Your task to perform on an android device: Do I have any events tomorrow? Image 0: 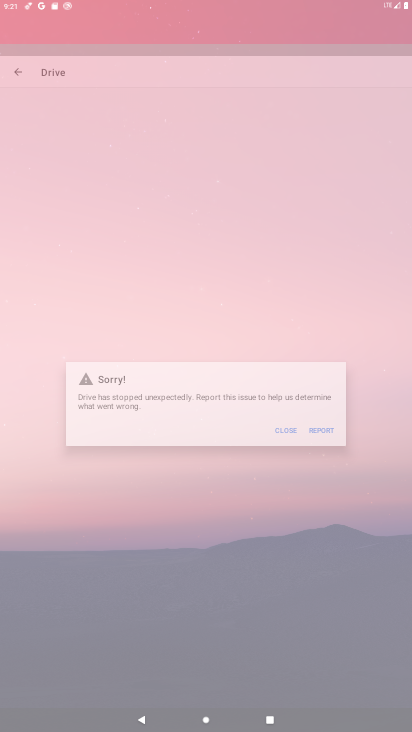
Step 0: press home button
Your task to perform on an android device: Do I have any events tomorrow? Image 1: 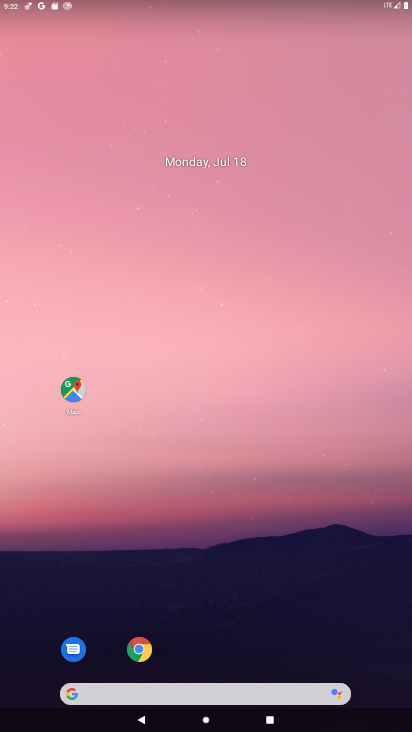
Step 1: click (195, 674)
Your task to perform on an android device: Do I have any events tomorrow? Image 2: 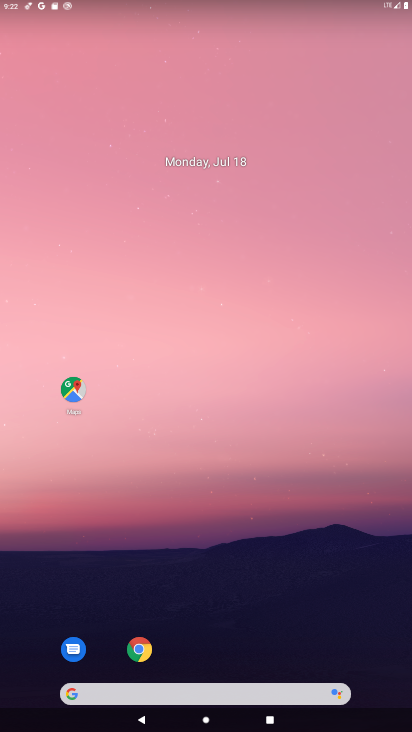
Step 2: drag from (195, 684) to (207, 278)
Your task to perform on an android device: Do I have any events tomorrow? Image 3: 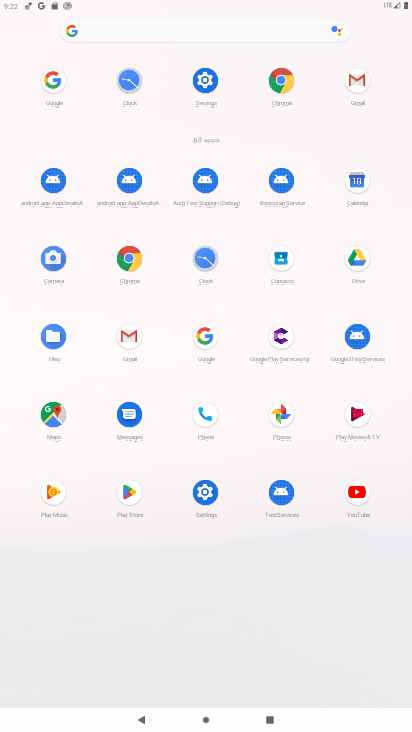
Step 3: click (363, 182)
Your task to perform on an android device: Do I have any events tomorrow? Image 4: 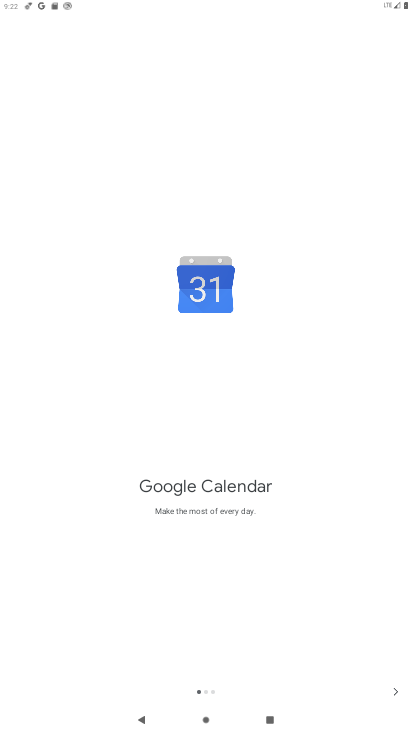
Step 4: click (394, 692)
Your task to perform on an android device: Do I have any events tomorrow? Image 5: 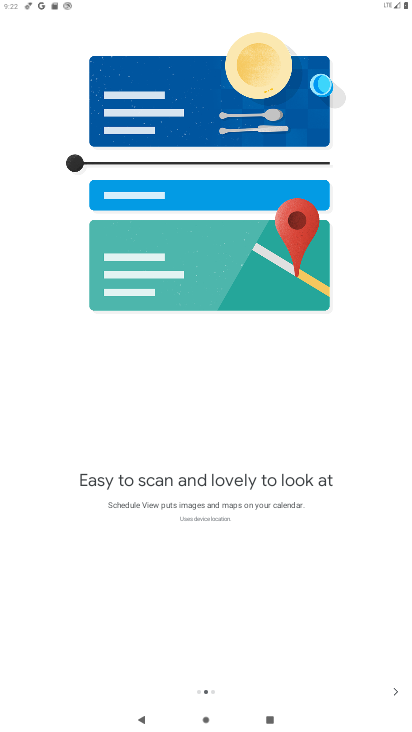
Step 5: click (394, 692)
Your task to perform on an android device: Do I have any events tomorrow? Image 6: 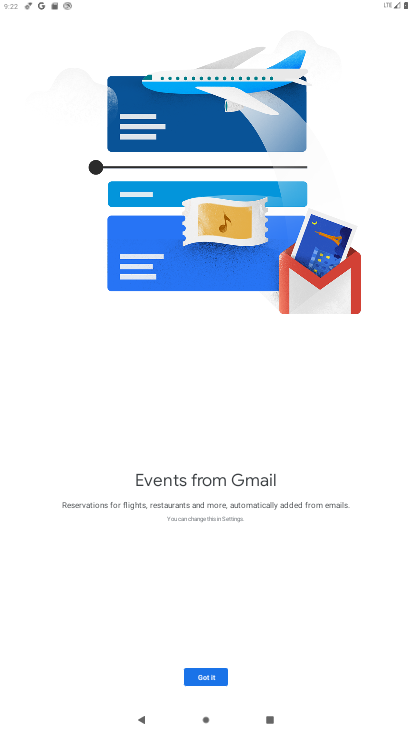
Step 6: click (204, 674)
Your task to perform on an android device: Do I have any events tomorrow? Image 7: 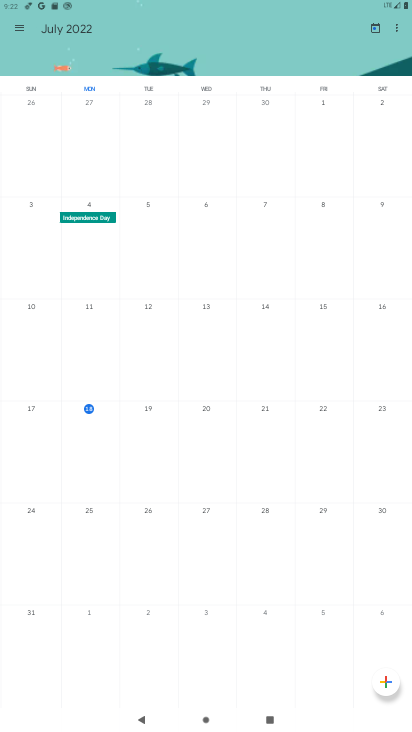
Step 7: click (144, 409)
Your task to perform on an android device: Do I have any events tomorrow? Image 8: 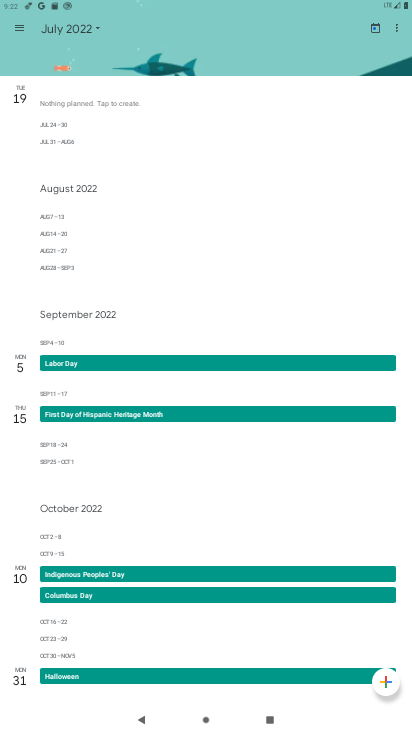
Step 8: task complete